Your task to perform on an android device: turn on the 12-hour format for clock Image 0: 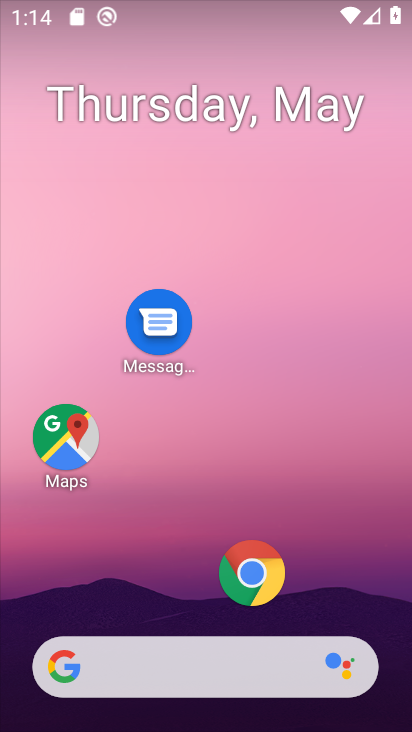
Step 0: drag from (197, 596) to (197, 10)
Your task to perform on an android device: turn on the 12-hour format for clock Image 1: 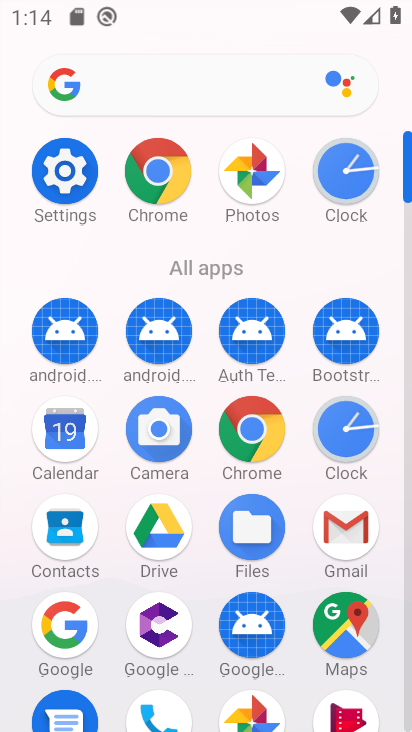
Step 1: click (332, 448)
Your task to perform on an android device: turn on the 12-hour format for clock Image 2: 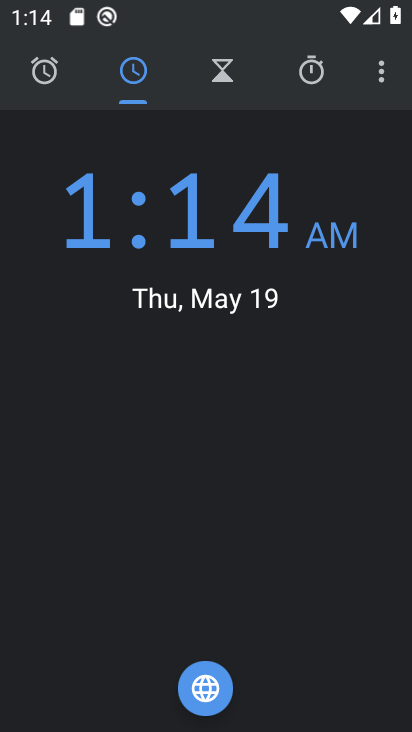
Step 2: click (390, 64)
Your task to perform on an android device: turn on the 12-hour format for clock Image 3: 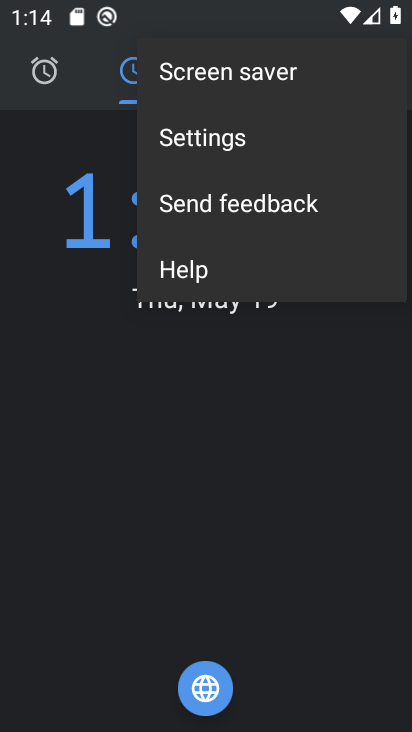
Step 3: click (249, 137)
Your task to perform on an android device: turn on the 12-hour format for clock Image 4: 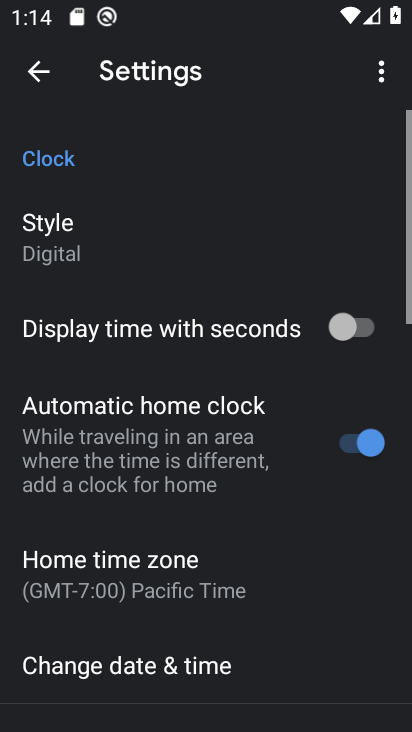
Step 4: drag from (181, 428) to (234, 125)
Your task to perform on an android device: turn on the 12-hour format for clock Image 5: 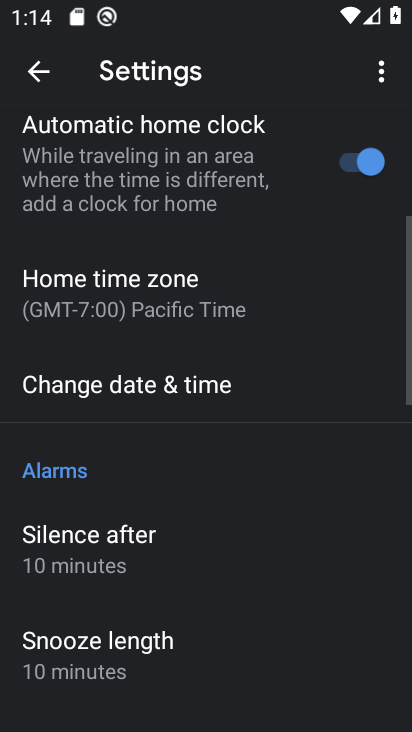
Step 5: drag from (228, 131) to (181, 550)
Your task to perform on an android device: turn on the 12-hour format for clock Image 6: 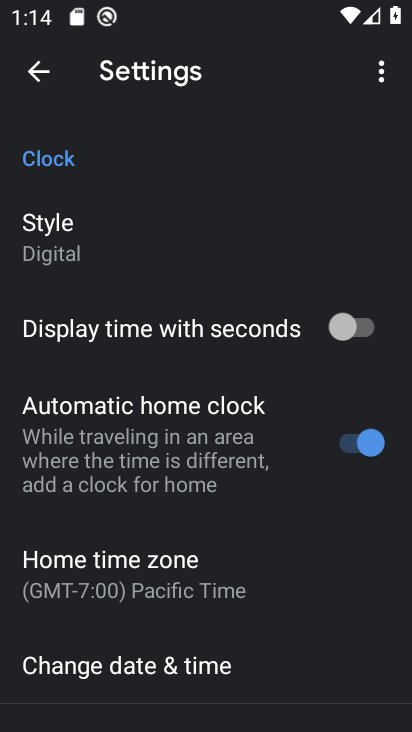
Step 6: drag from (237, 588) to (240, 227)
Your task to perform on an android device: turn on the 12-hour format for clock Image 7: 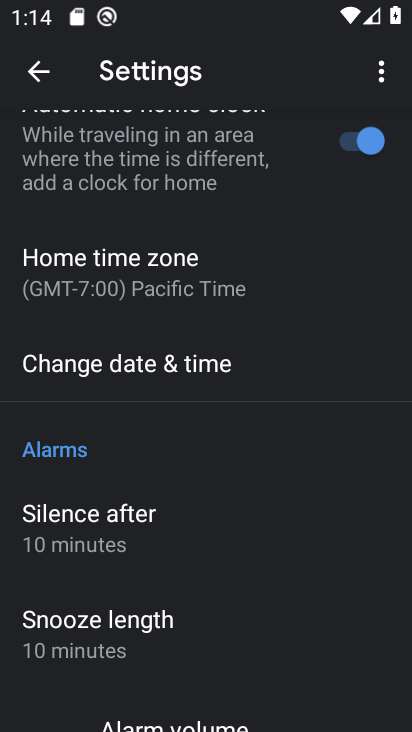
Step 7: click (212, 364)
Your task to perform on an android device: turn on the 12-hour format for clock Image 8: 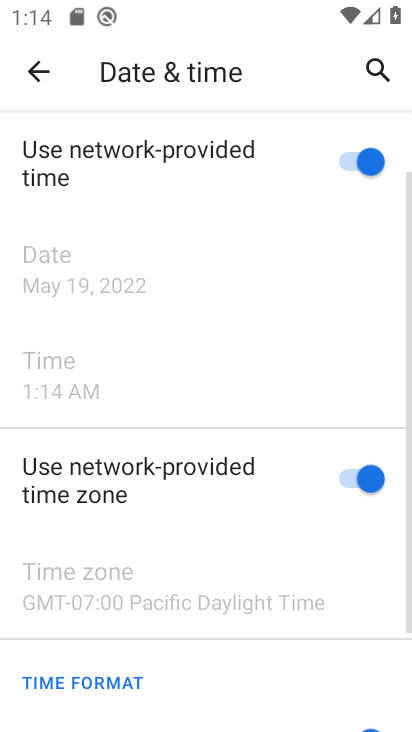
Step 8: task complete